Your task to perform on an android device: Search for "lenovo thinkpad" on target, select the first entry, and add it to the cart. Image 0: 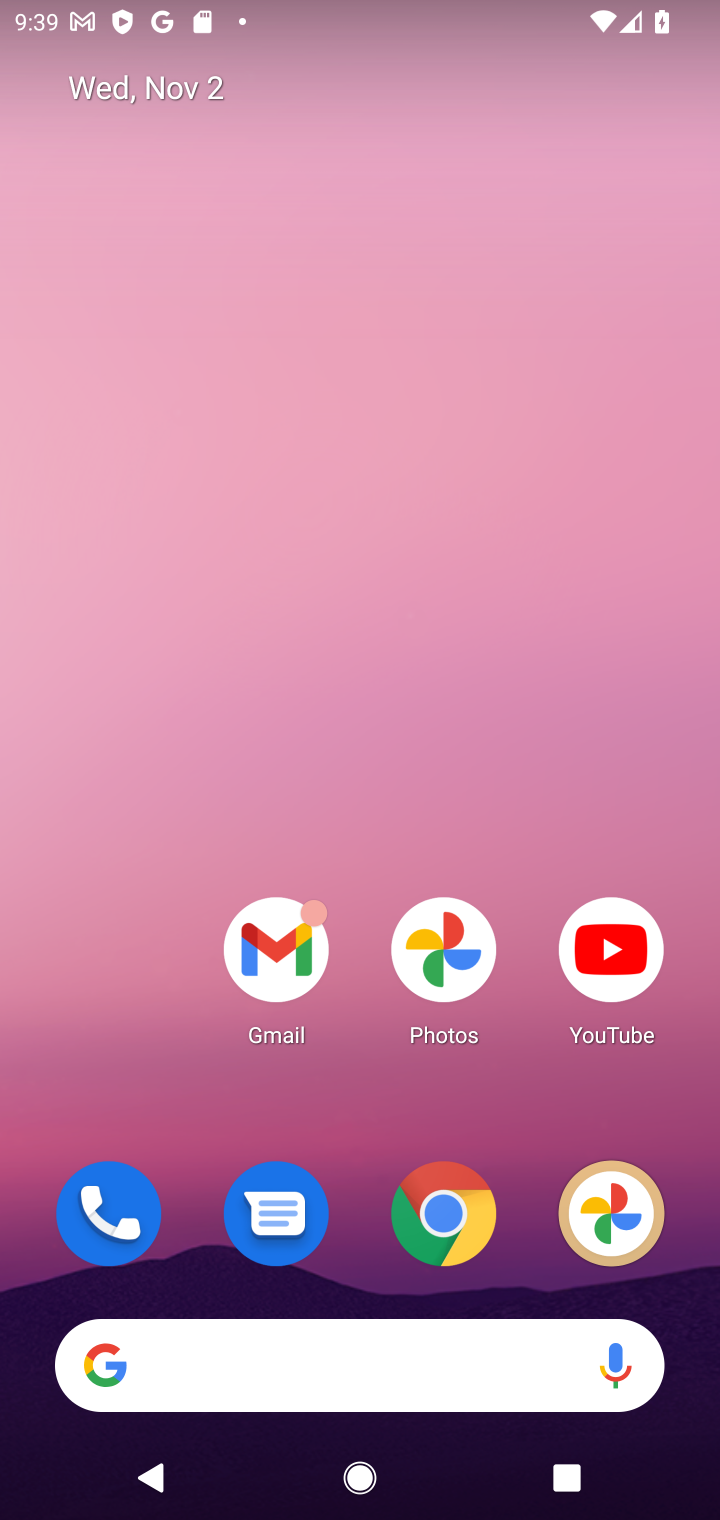
Step 0: click (443, 1199)
Your task to perform on an android device: Search for "lenovo thinkpad" on target, select the first entry, and add it to the cart. Image 1: 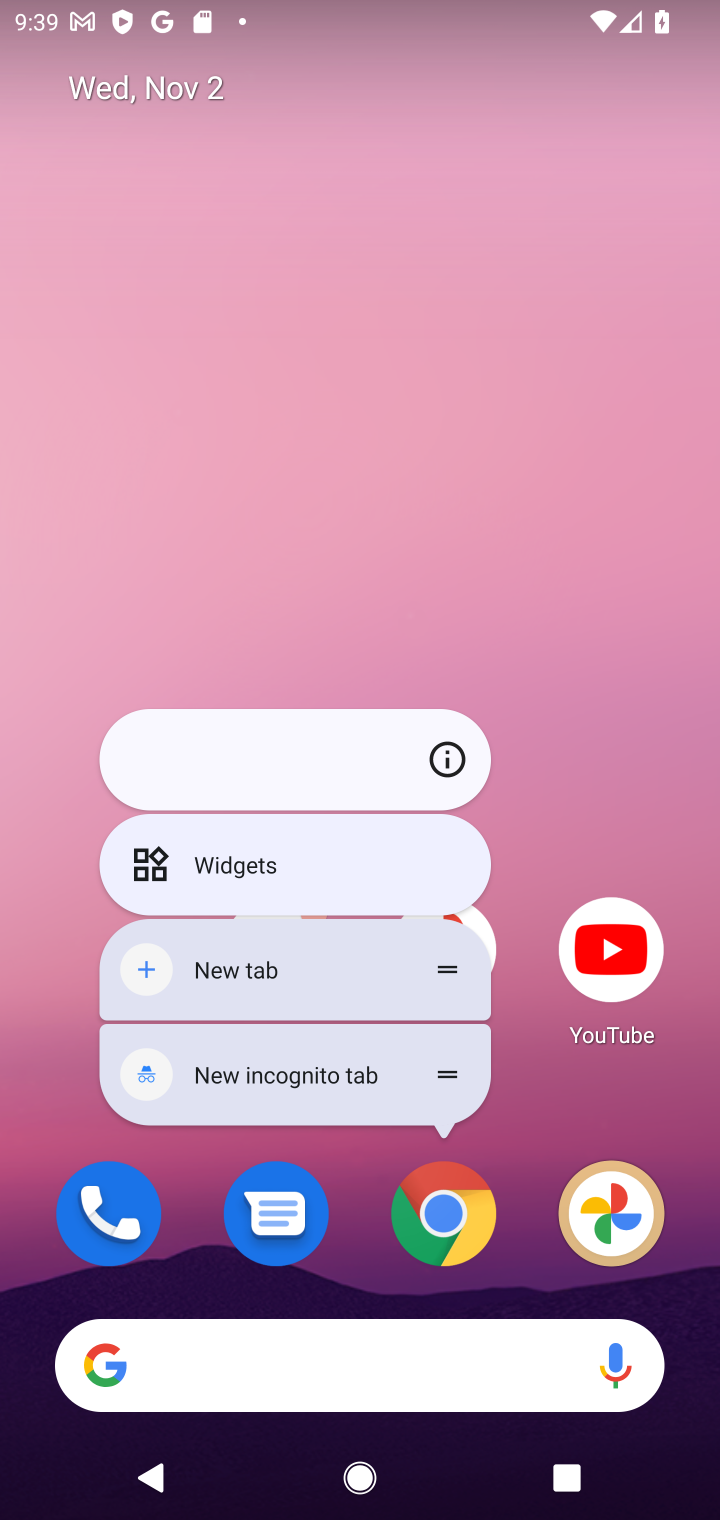
Step 1: click (433, 1219)
Your task to perform on an android device: Search for "lenovo thinkpad" on target, select the first entry, and add it to the cart. Image 2: 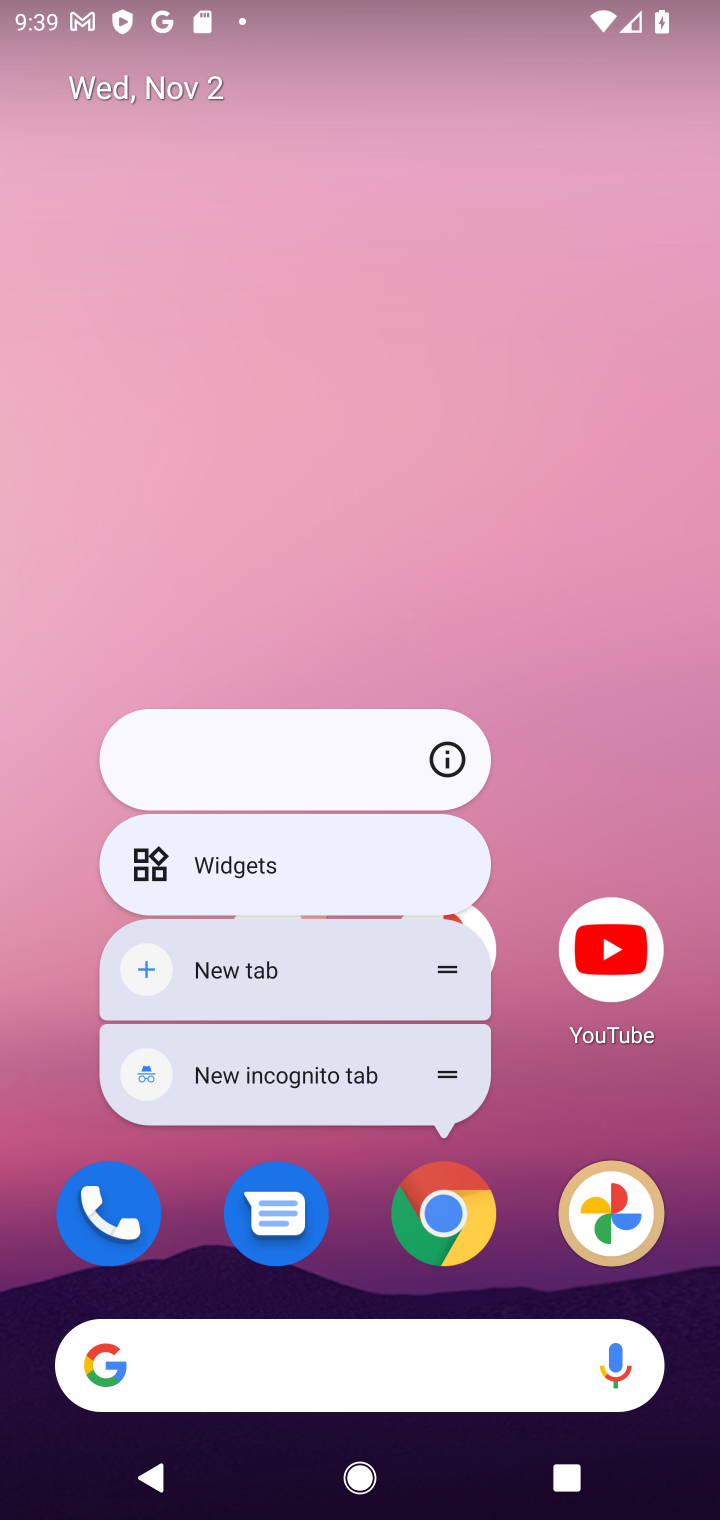
Step 2: click (433, 1228)
Your task to perform on an android device: Search for "lenovo thinkpad" on target, select the first entry, and add it to the cart. Image 3: 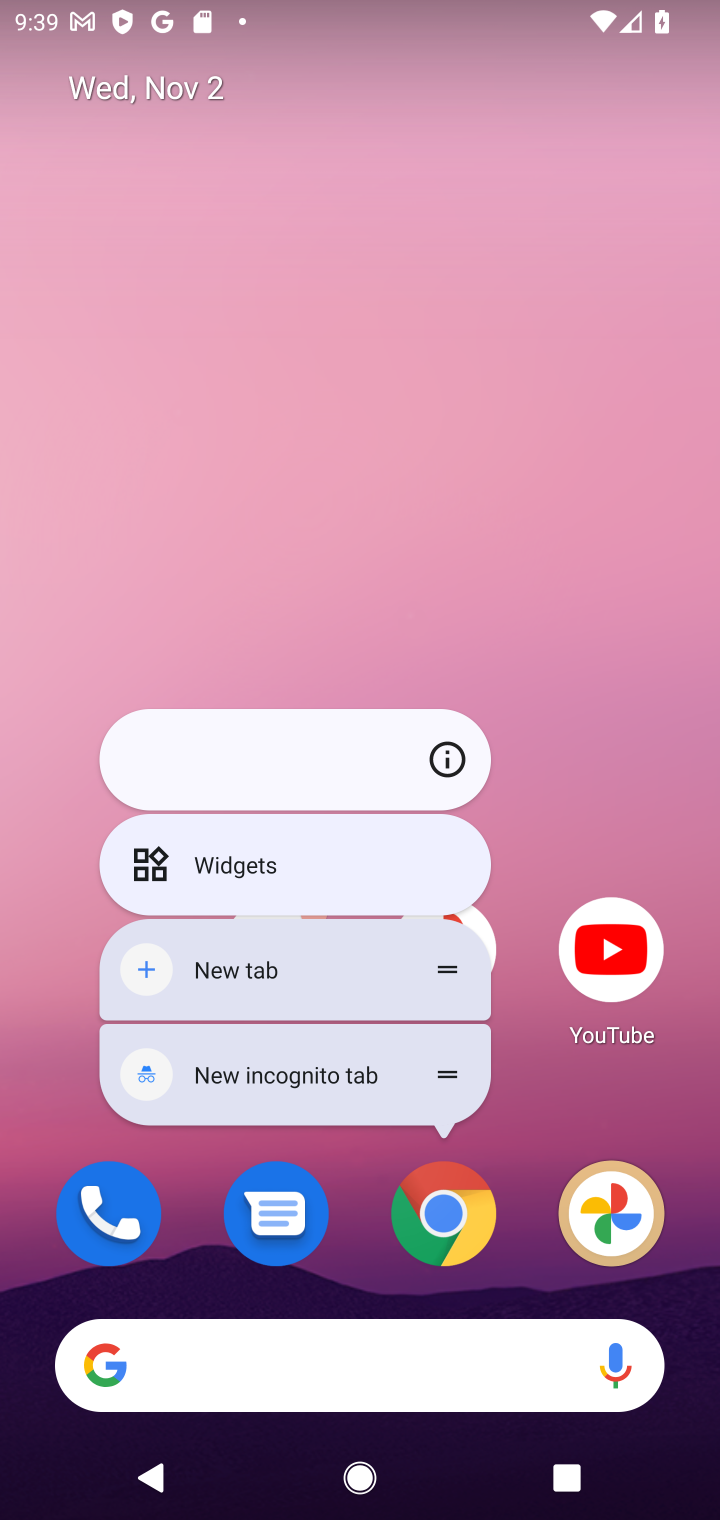
Step 3: click (450, 1230)
Your task to perform on an android device: Search for "lenovo thinkpad" on target, select the first entry, and add it to the cart. Image 4: 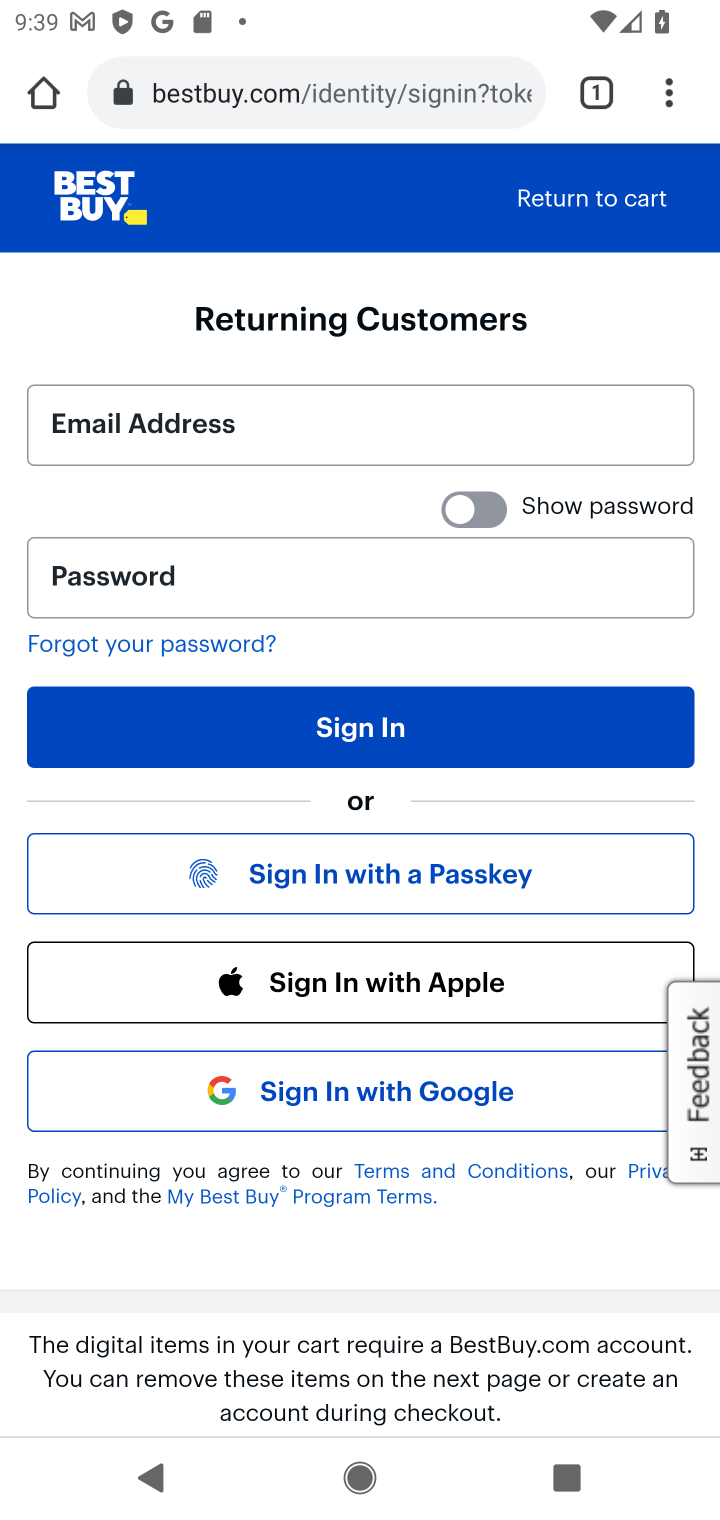
Step 4: click (252, 79)
Your task to perform on an android device: Search for "lenovo thinkpad" on target, select the first entry, and add it to the cart. Image 5: 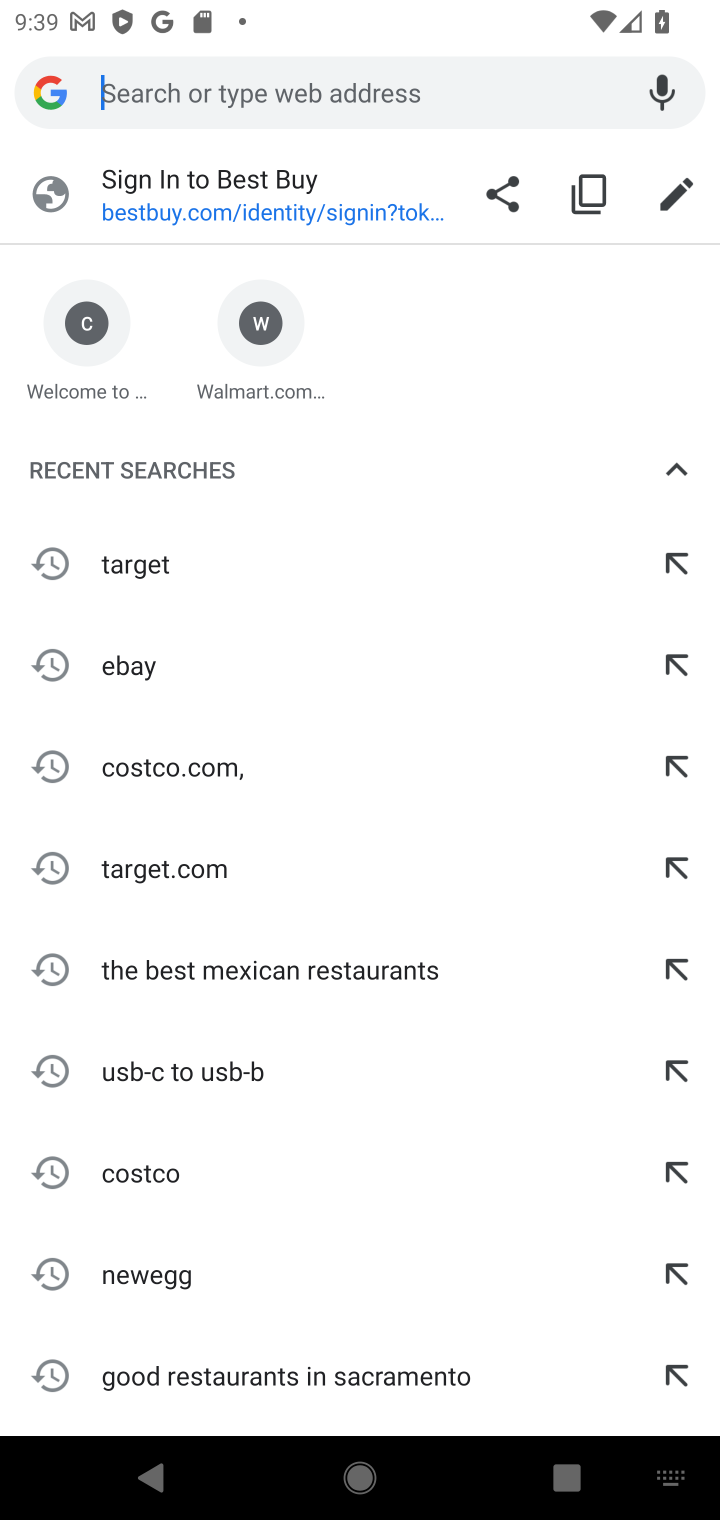
Step 5: type "target"
Your task to perform on an android device: Search for "lenovo thinkpad" on target, select the first entry, and add it to the cart. Image 6: 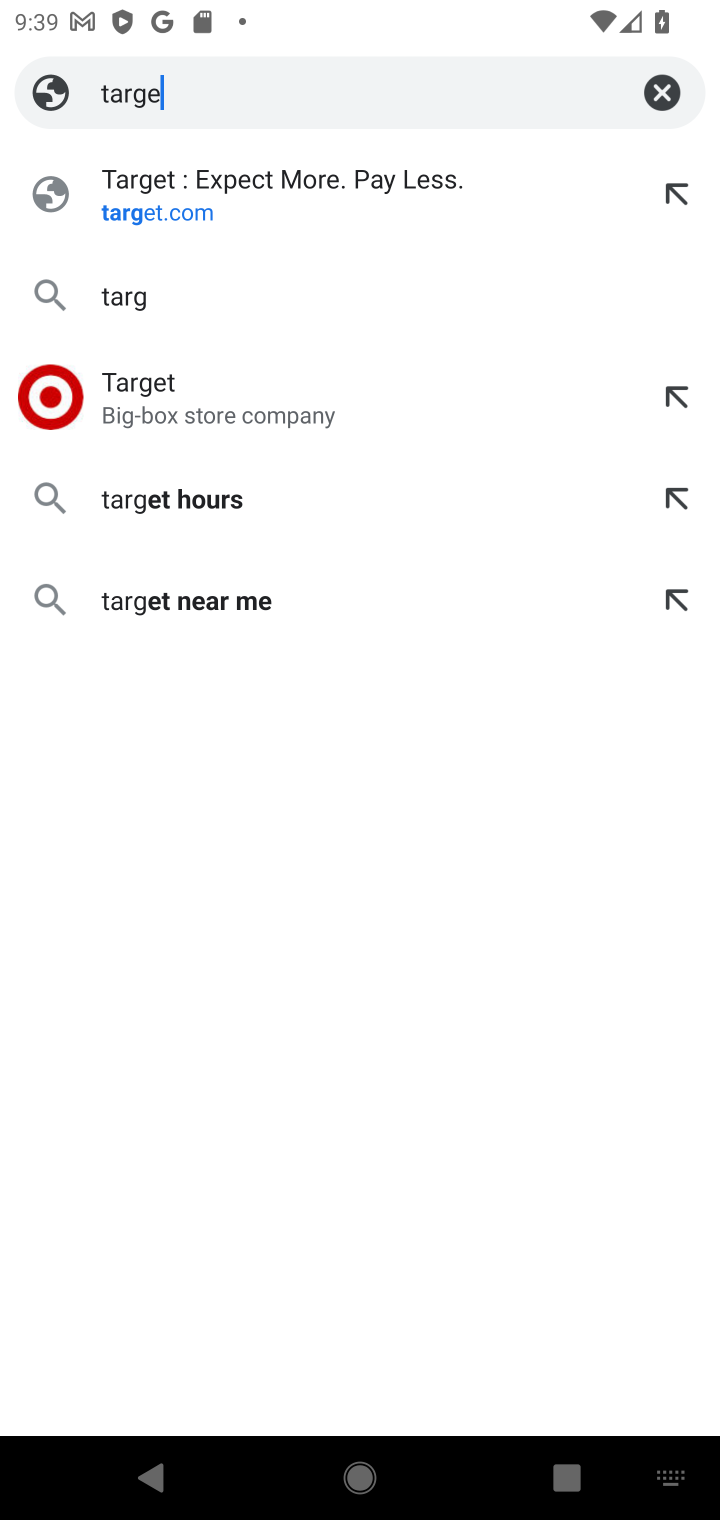
Step 6: type ""
Your task to perform on an android device: Search for "lenovo thinkpad" on target, select the first entry, and add it to the cart. Image 7: 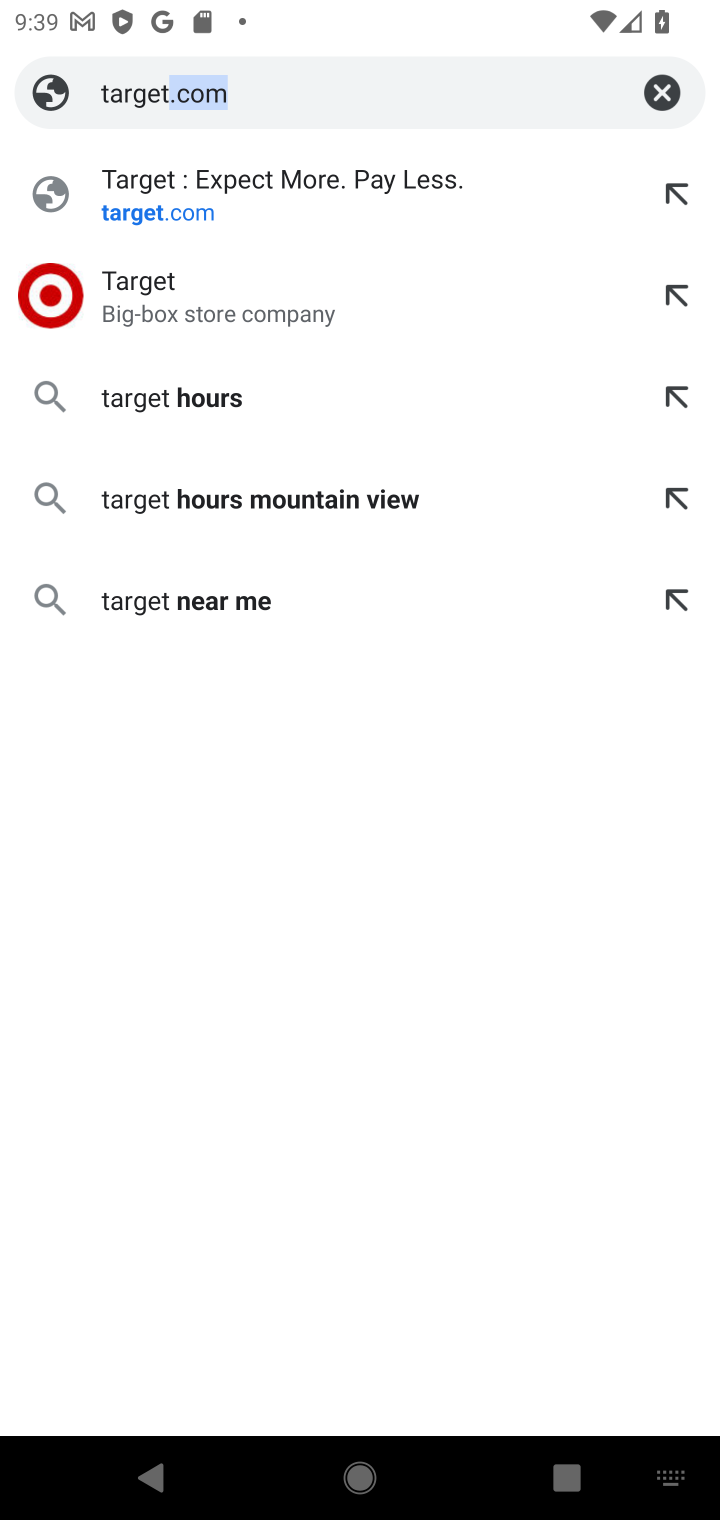
Step 7: click (428, 200)
Your task to perform on an android device: Search for "lenovo thinkpad" on target, select the first entry, and add it to the cart. Image 8: 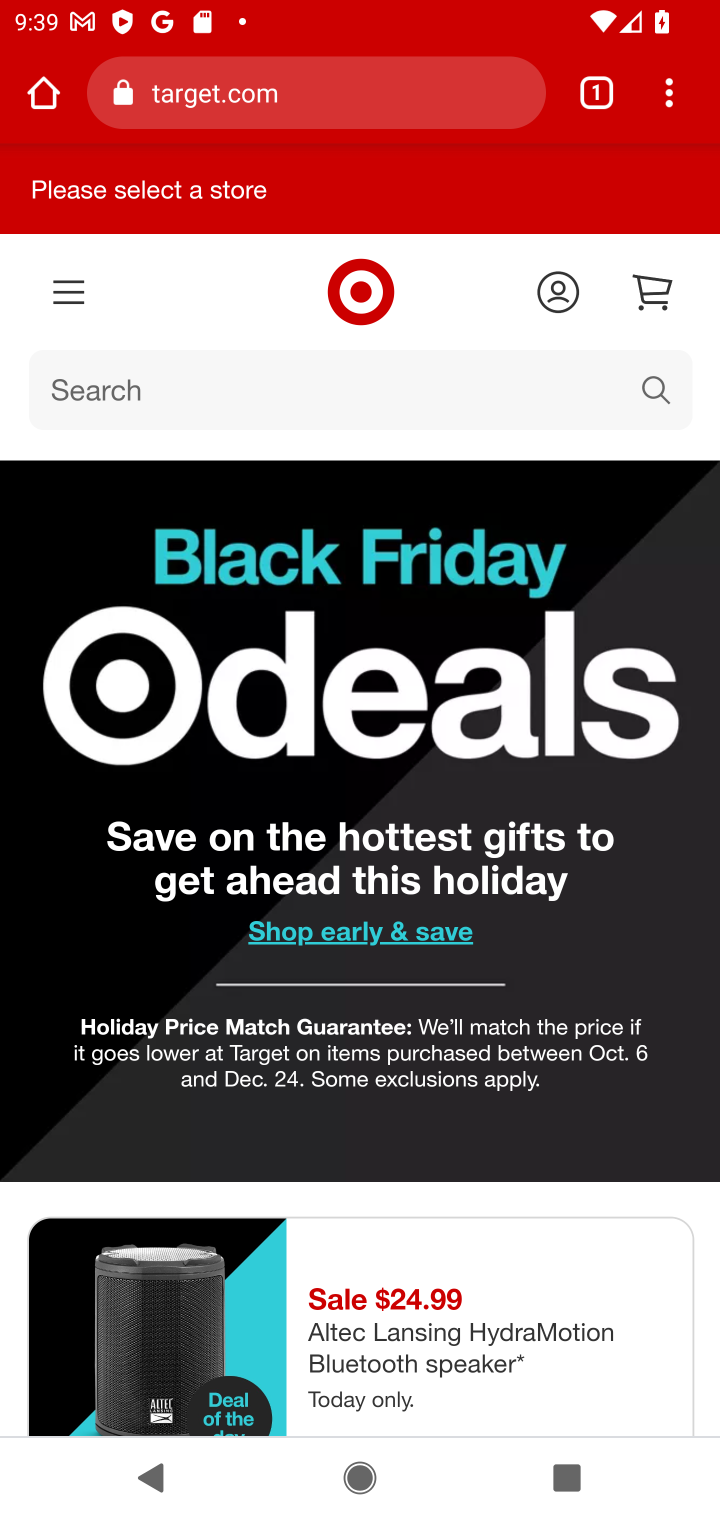
Step 8: click (273, 402)
Your task to perform on an android device: Search for "lenovo thinkpad" on target, select the first entry, and add it to the cart. Image 9: 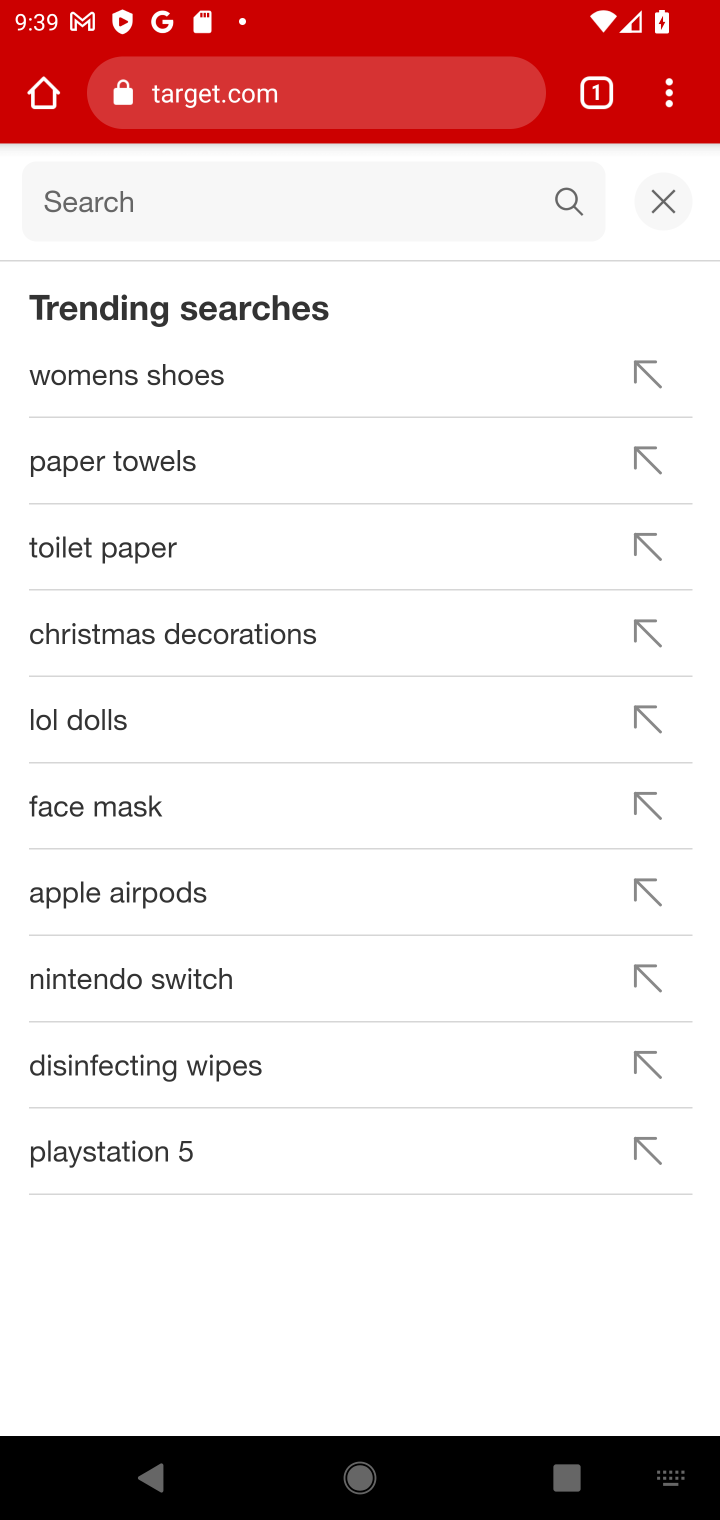
Step 9: type "lenovo thinkpad"
Your task to perform on an android device: Search for "lenovo thinkpad" on target, select the first entry, and add it to the cart. Image 10: 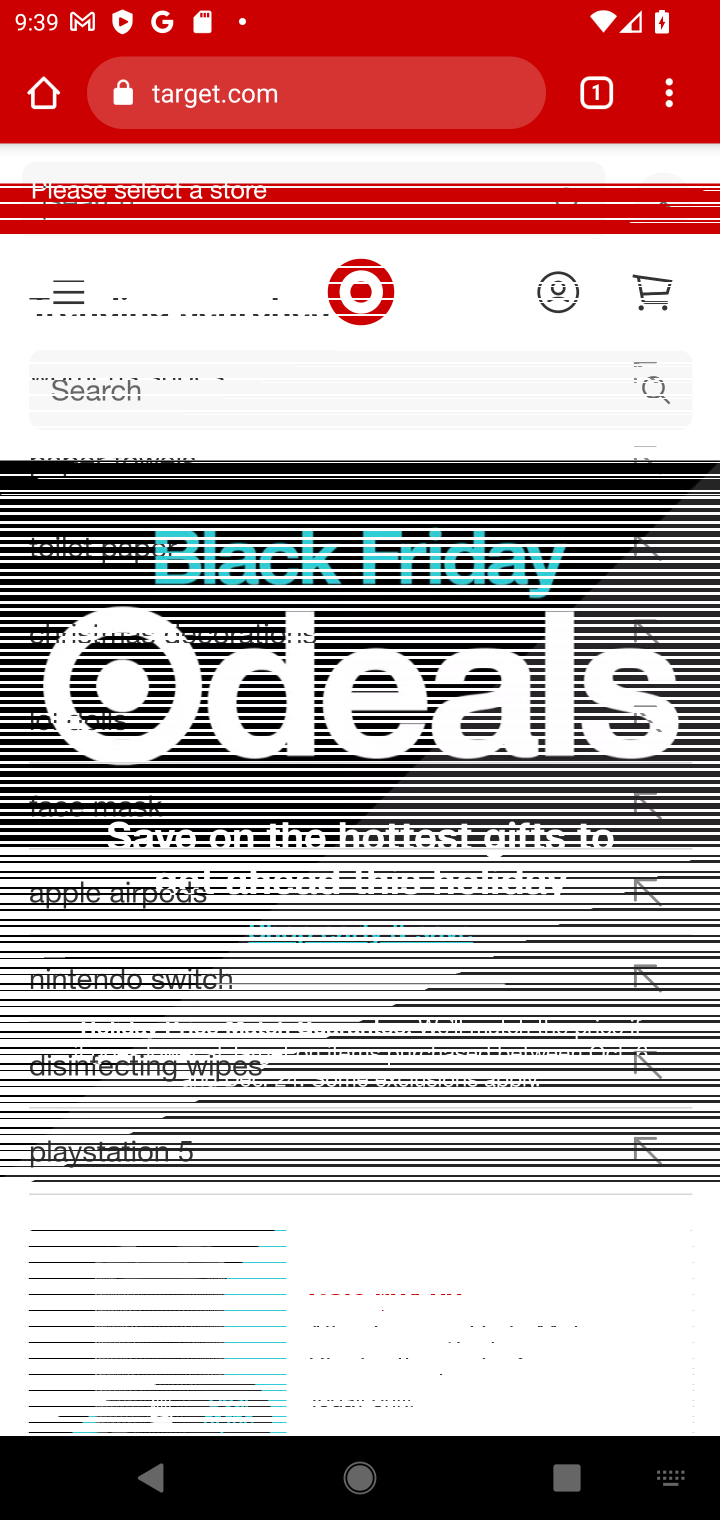
Step 10: type ""
Your task to perform on an android device: Search for "lenovo thinkpad" on target, select the first entry, and add it to the cart. Image 11: 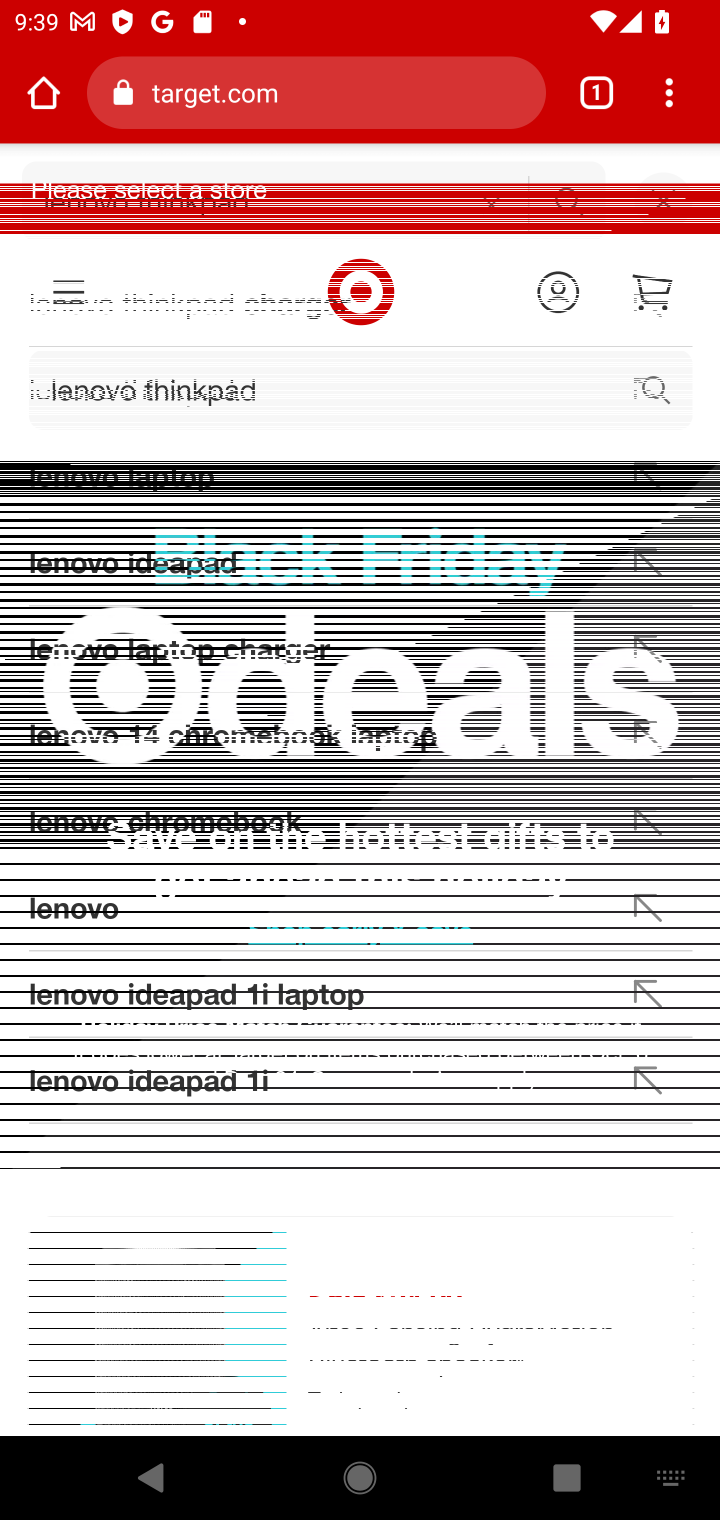
Step 11: press enter
Your task to perform on an android device: Search for "lenovo thinkpad" on target, select the first entry, and add it to the cart. Image 12: 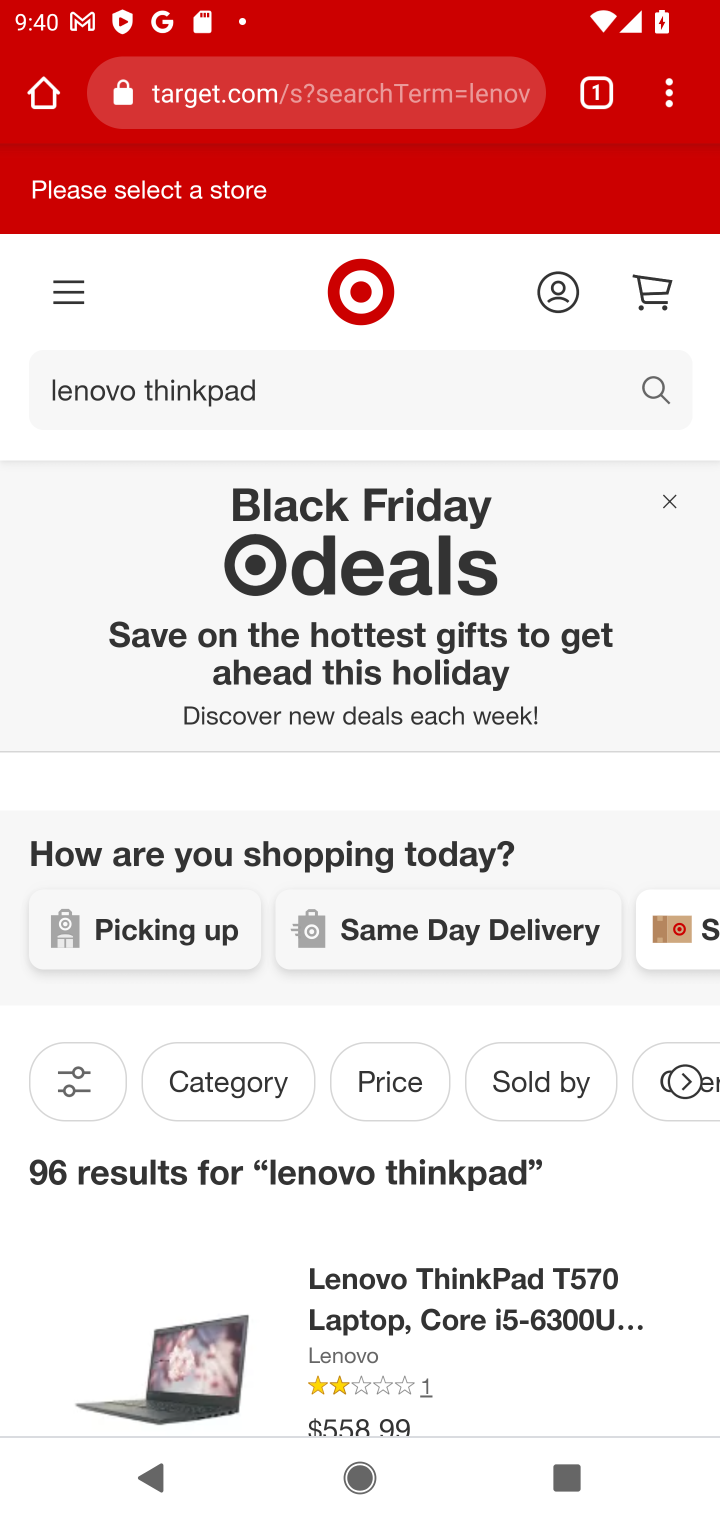
Step 12: click (307, 1315)
Your task to perform on an android device: Search for "lenovo thinkpad" on target, select the first entry, and add it to the cart. Image 13: 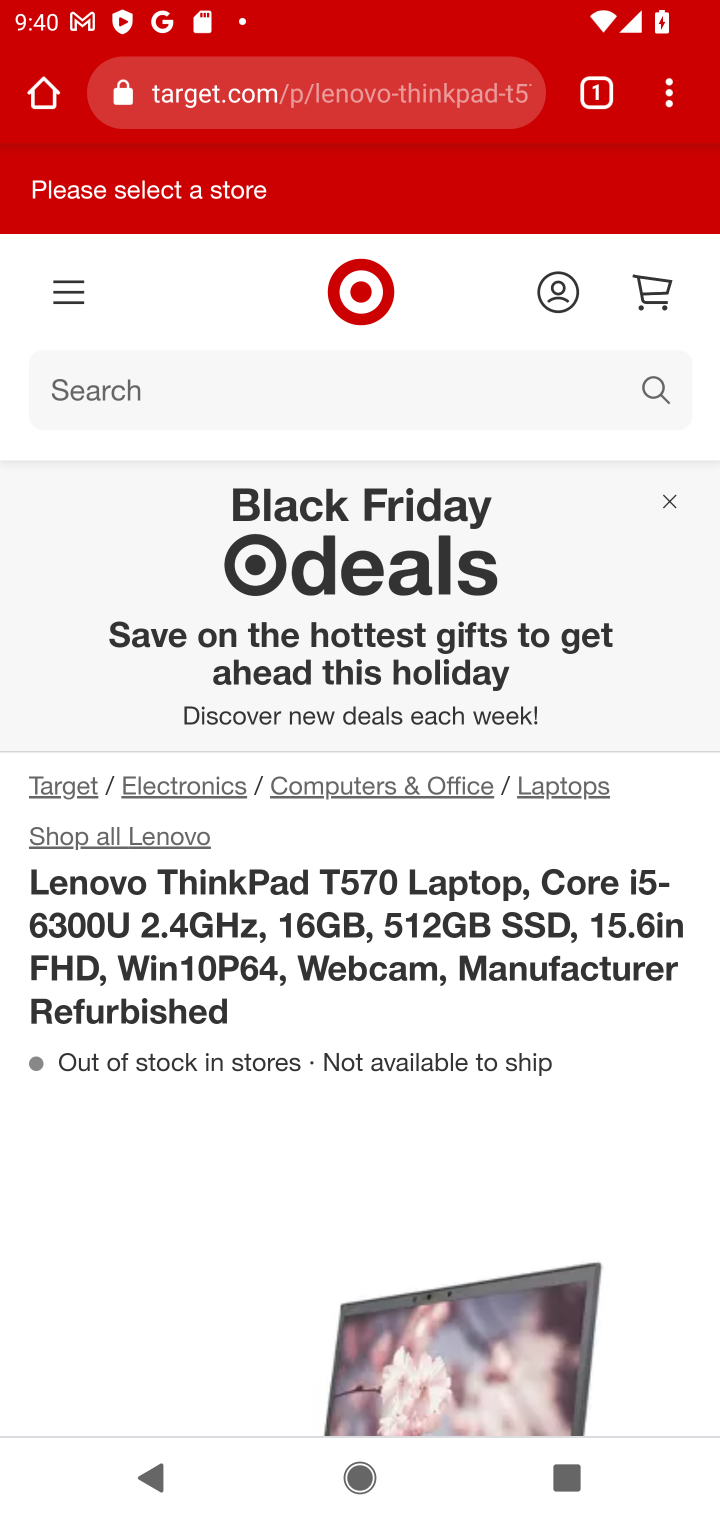
Step 13: drag from (361, 922) to (473, 425)
Your task to perform on an android device: Search for "lenovo thinkpad" on target, select the first entry, and add it to the cart. Image 14: 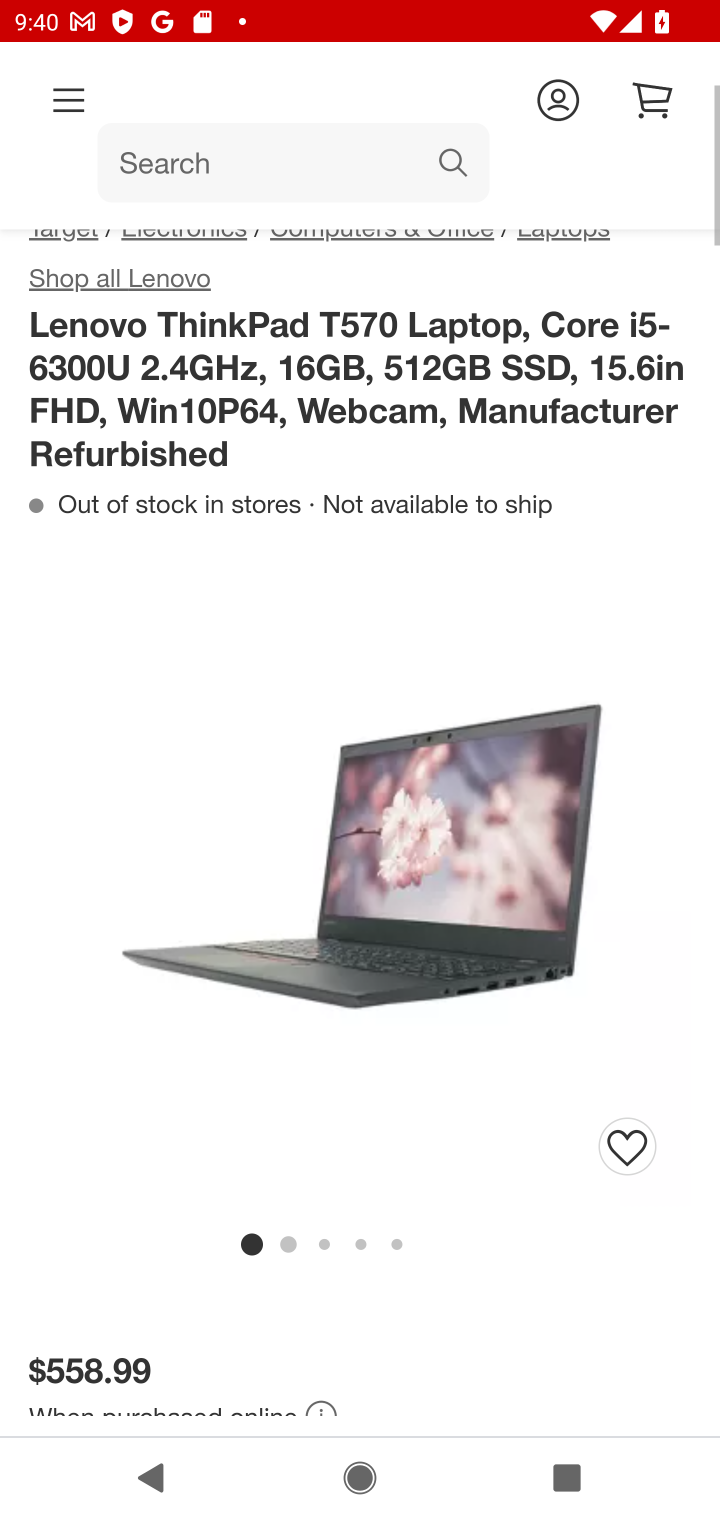
Step 14: drag from (425, 848) to (535, 437)
Your task to perform on an android device: Search for "lenovo thinkpad" on target, select the first entry, and add it to the cart. Image 15: 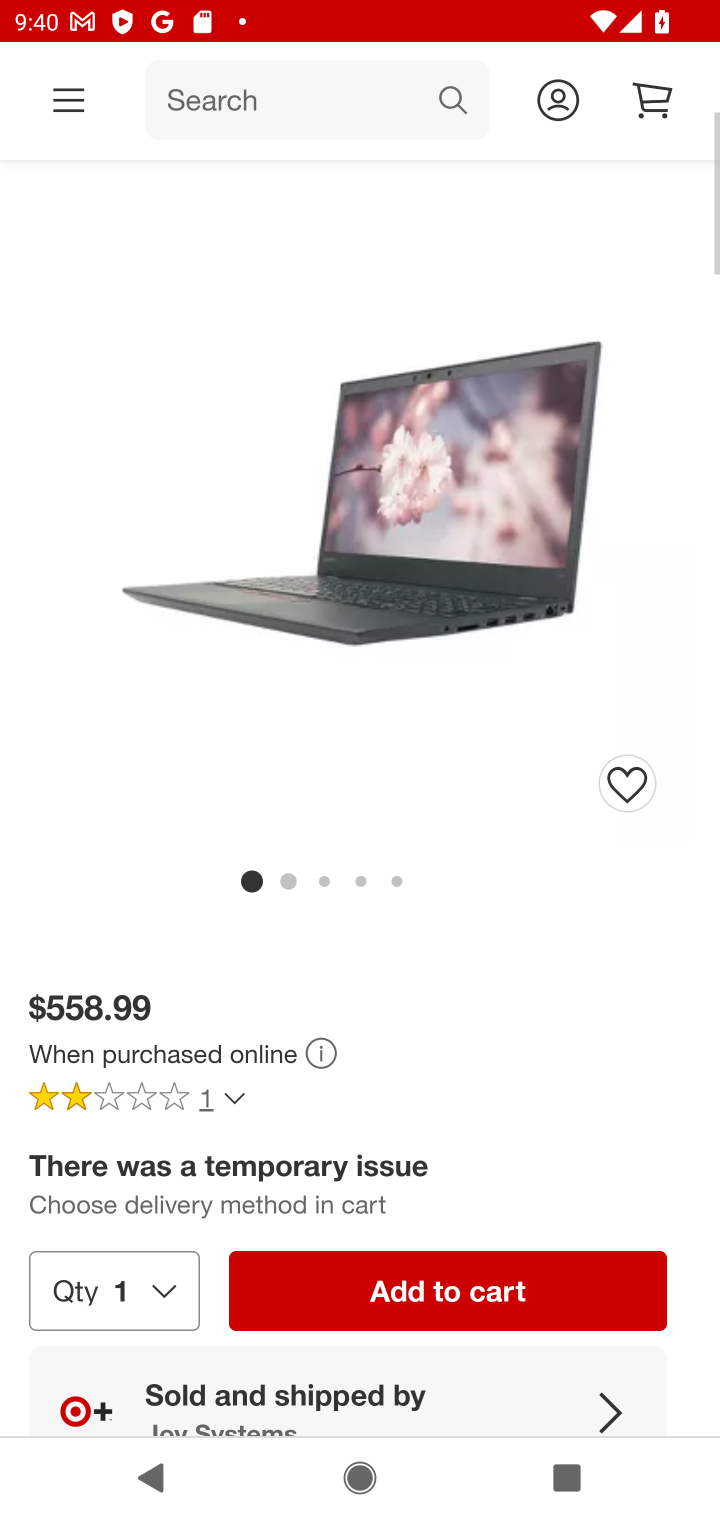
Step 15: drag from (527, 907) to (593, 386)
Your task to perform on an android device: Search for "lenovo thinkpad" on target, select the first entry, and add it to the cart. Image 16: 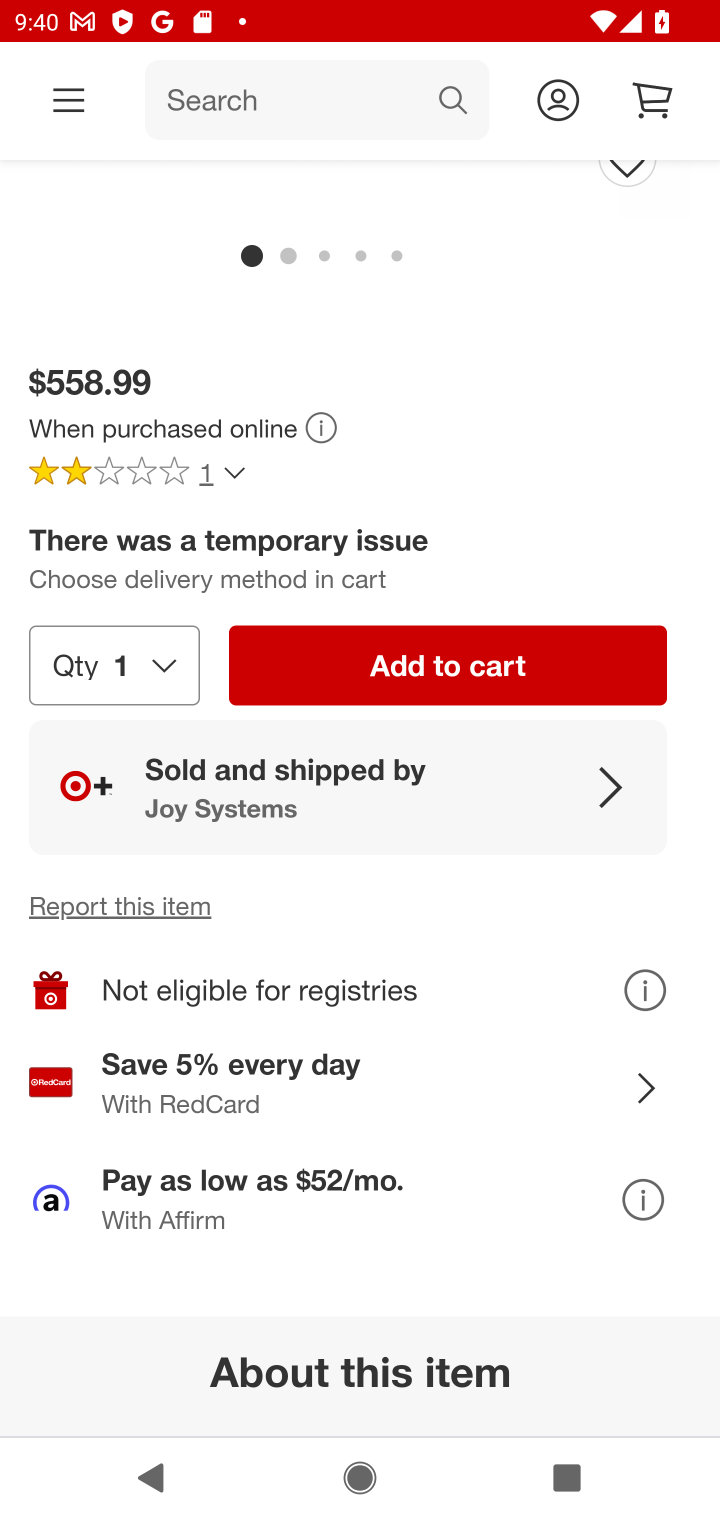
Step 16: click (535, 669)
Your task to perform on an android device: Search for "lenovo thinkpad" on target, select the first entry, and add it to the cart. Image 17: 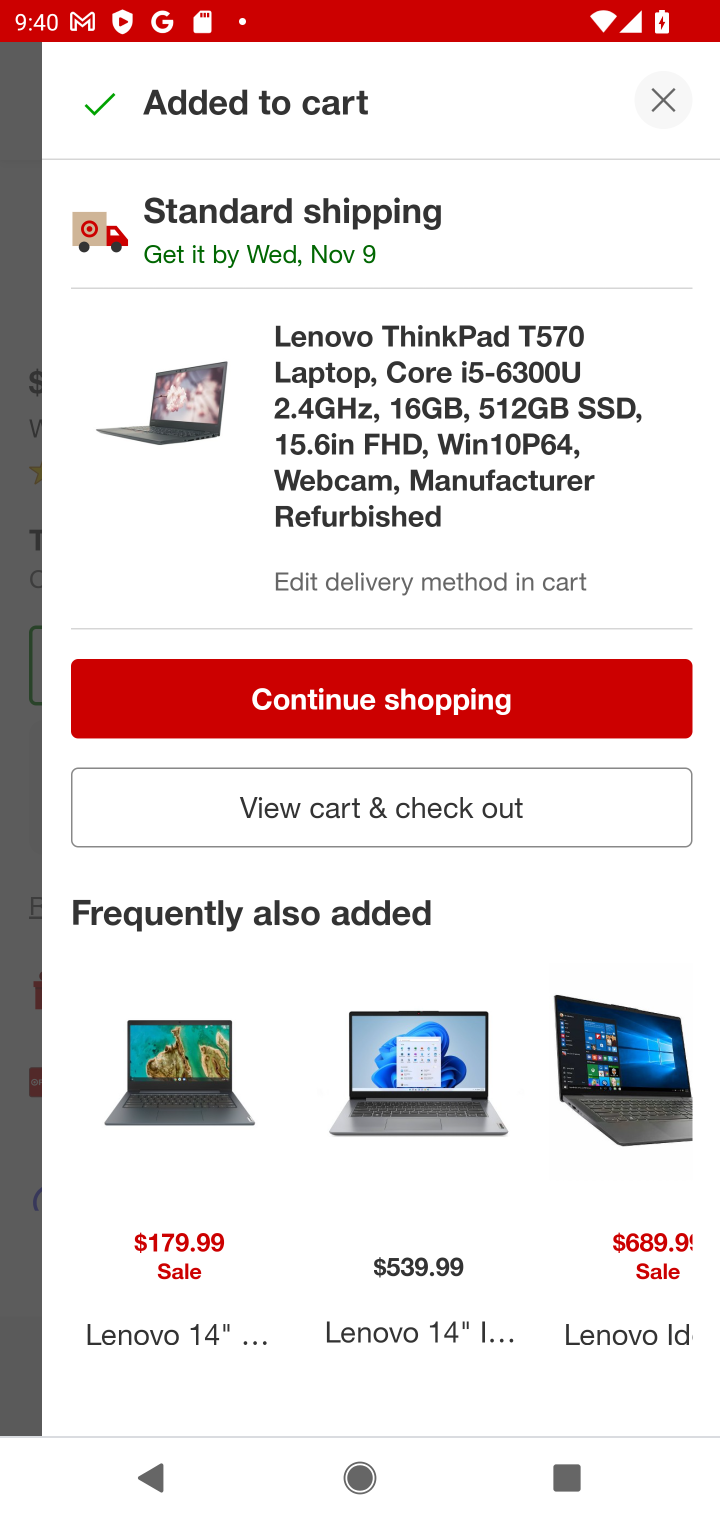
Step 17: click (518, 698)
Your task to perform on an android device: Search for "lenovo thinkpad" on target, select the first entry, and add it to the cart. Image 18: 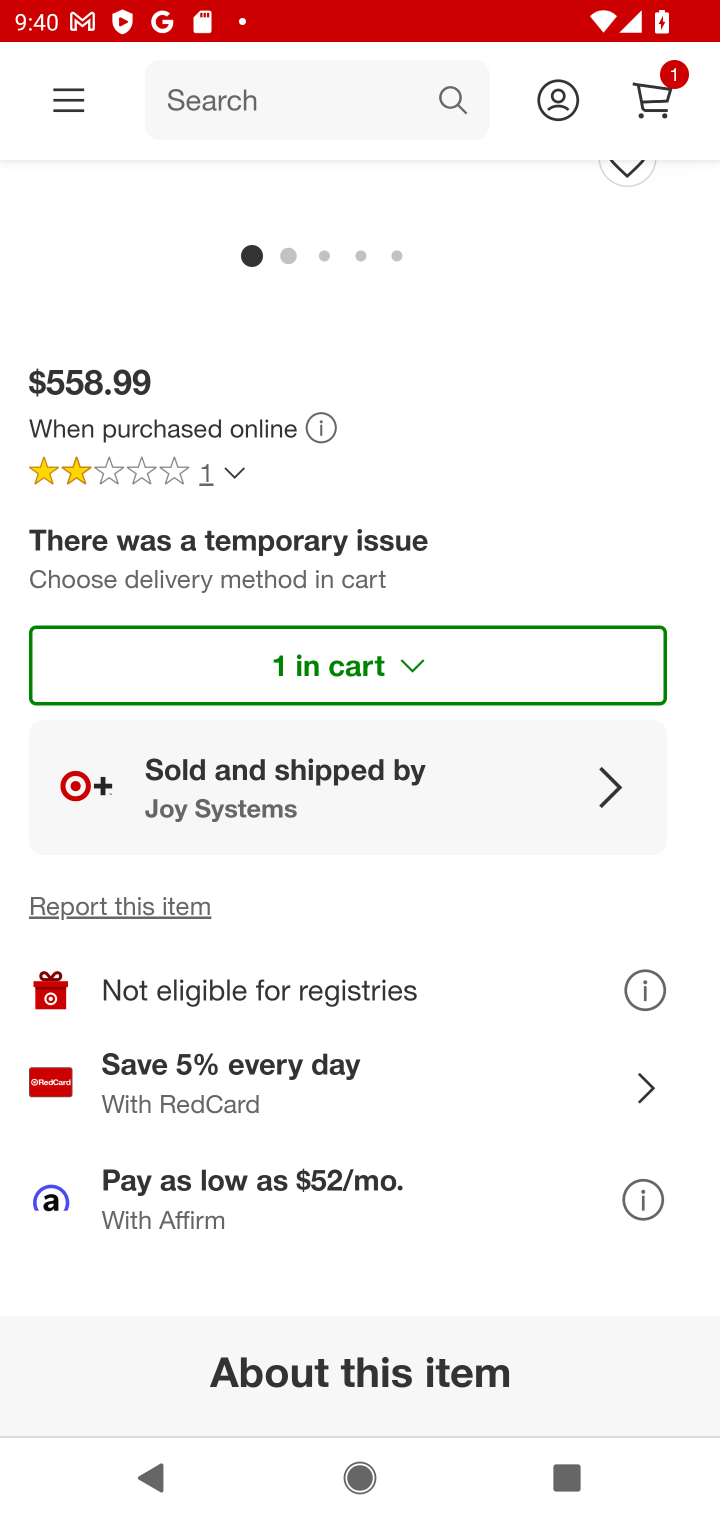
Step 18: click (670, 91)
Your task to perform on an android device: Search for "lenovo thinkpad" on target, select the first entry, and add it to the cart. Image 19: 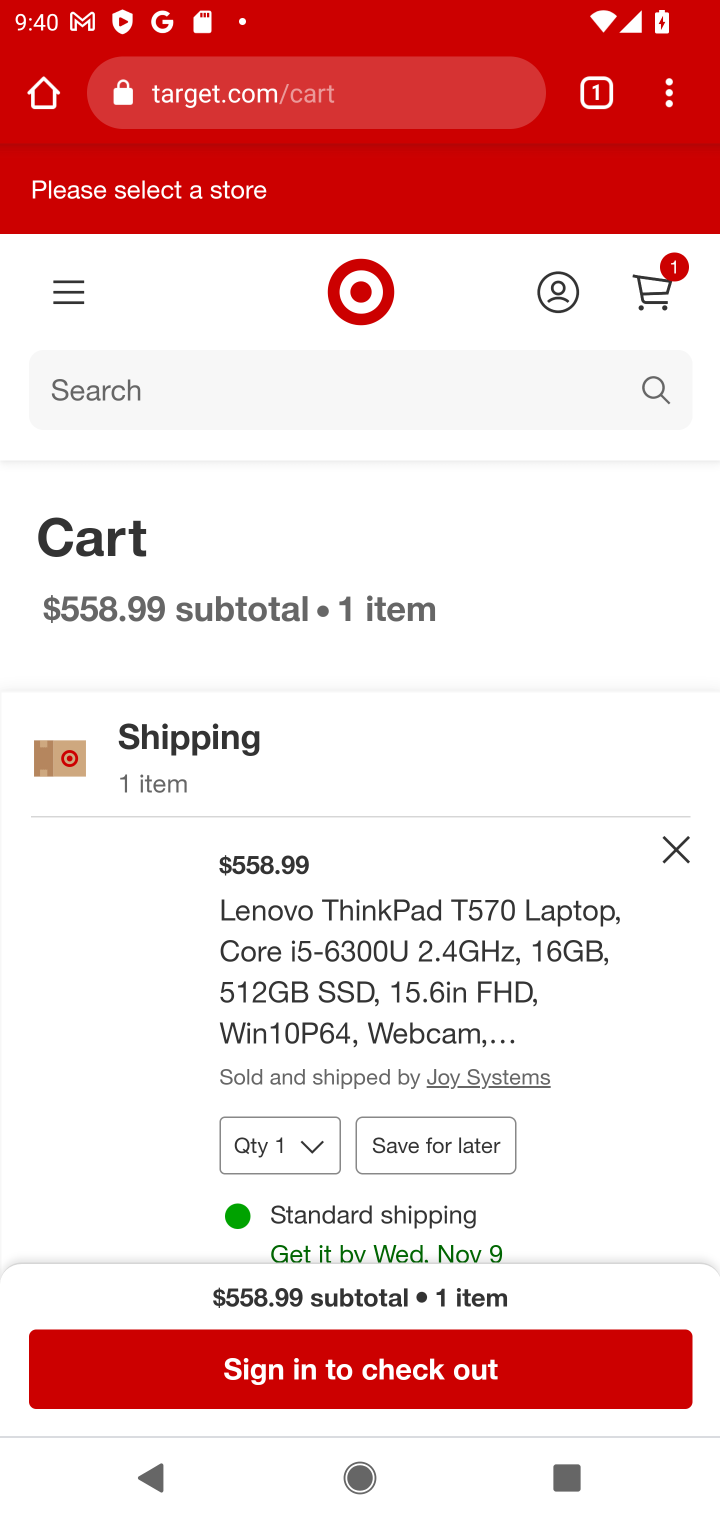
Step 19: click (639, 309)
Your task to perform on an android device: Search for "lenovo thinkpad" on target, select the first entry, and add it to the cart. Image 20: 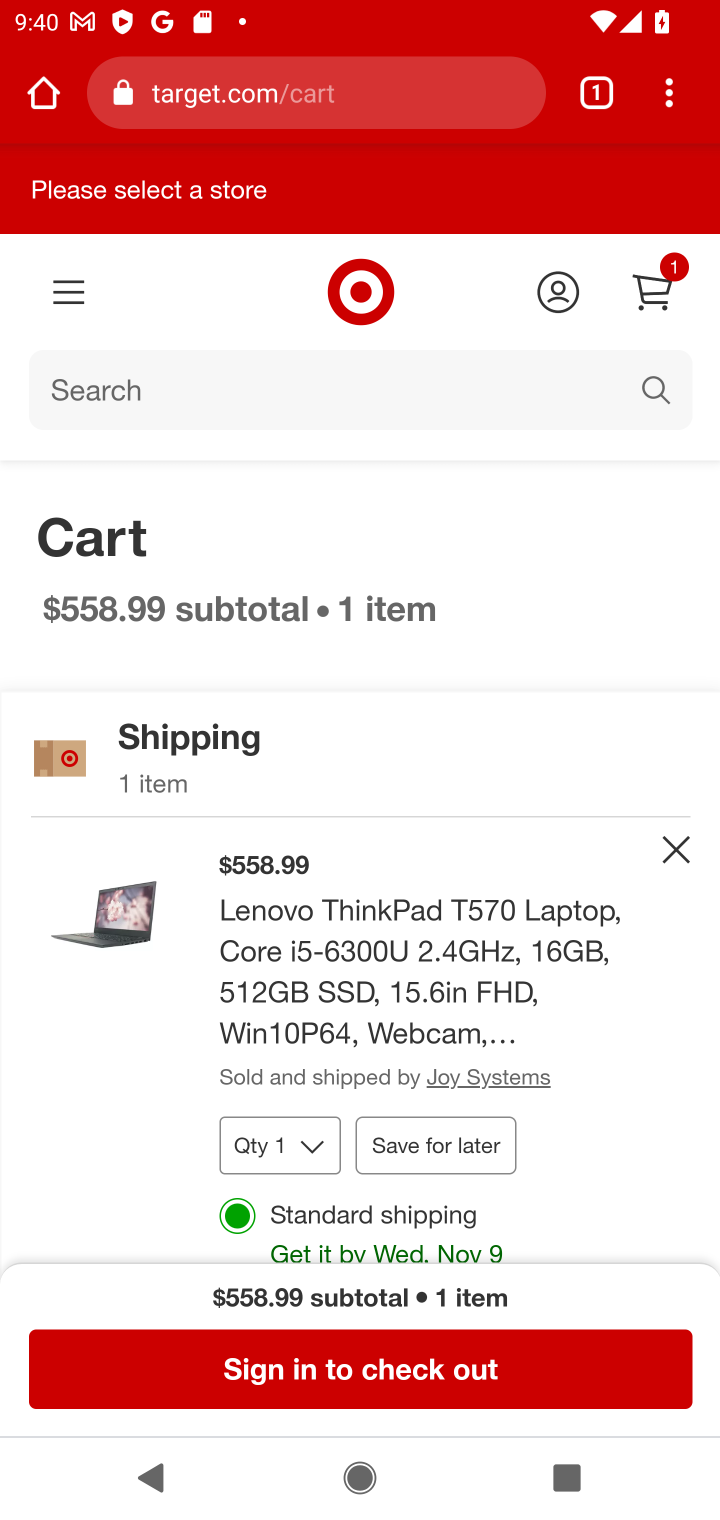
Step 20: task complete